Your task to perform on an android device: When is my next meeting? Image 0: 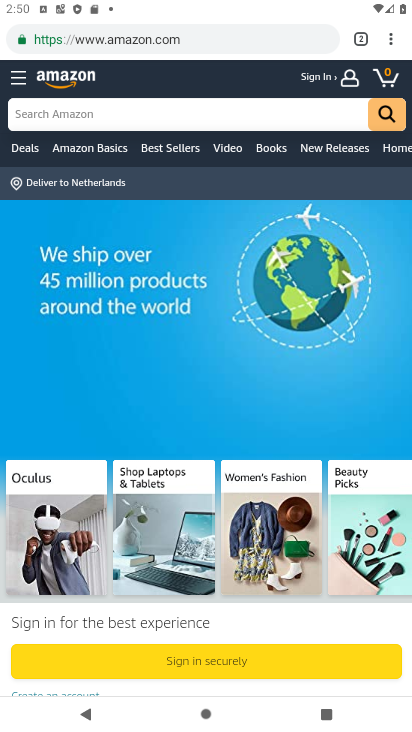
Step 0: press home button
Your task to perform on an android device: When is my next meeting? Image 1: 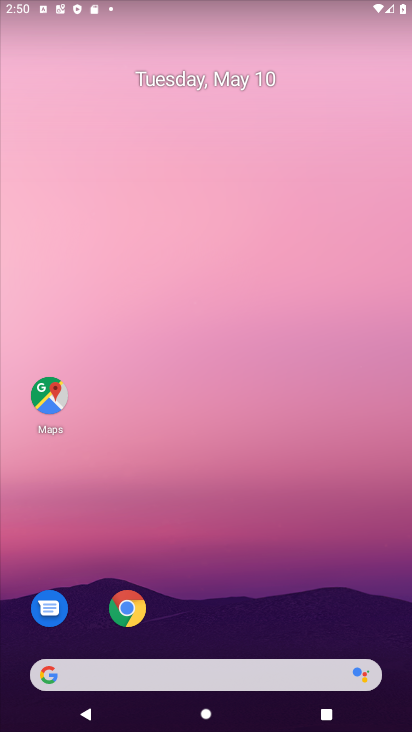
Step 1: drag from (363, 618) to (286, 84)
Your task to perform on an android device: When is my next meeting? Image 2: 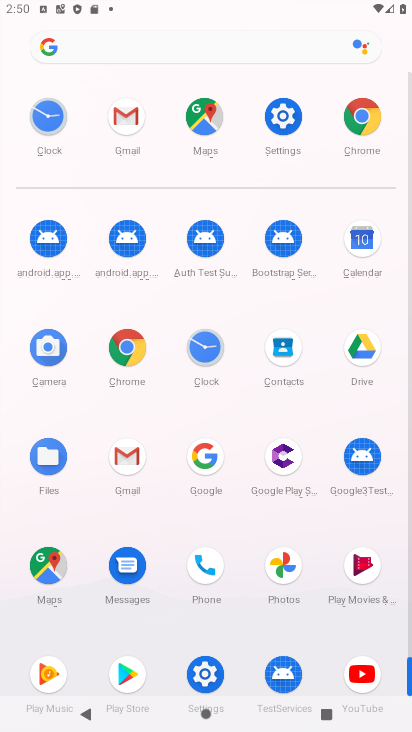
Step 2: click (362, 236)
Your task to perform on an android device: When is my next meeting? Image 3: 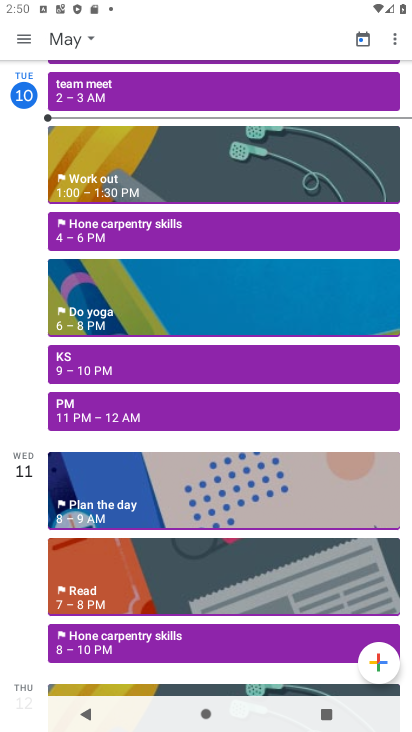
Step 3: task complete